Your task to perform on an android device: Open the map Image 0: 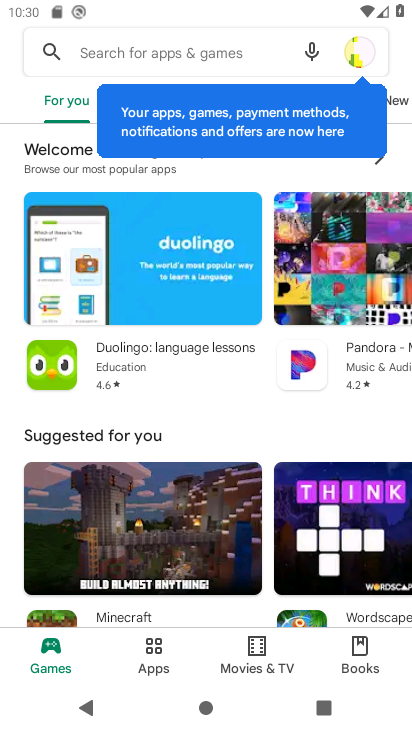
Step 0: press home button
Your task to perform on an android device: Open the map Image 1: 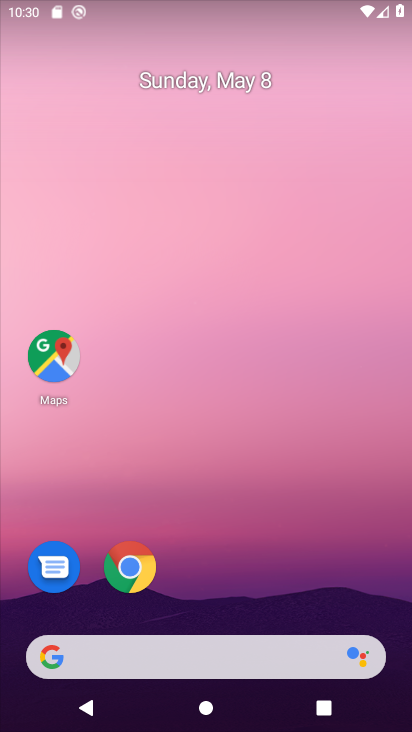
Step 1: click (65, 352)
Your task to perform on an android device: Open the map Image 2: 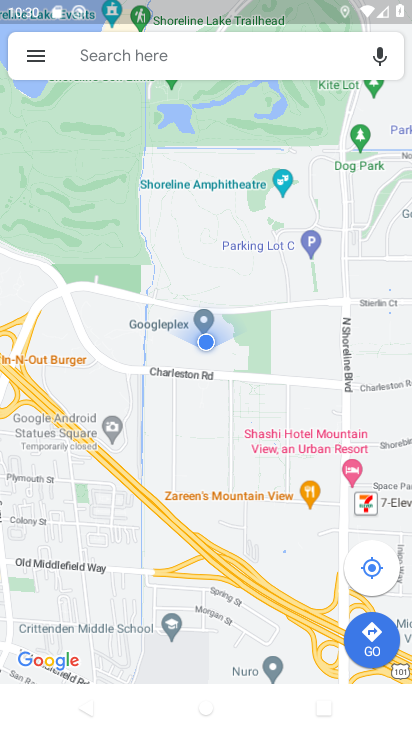
Step 2: task complete